Your task to perform on an android device: Go to Google Image 0: 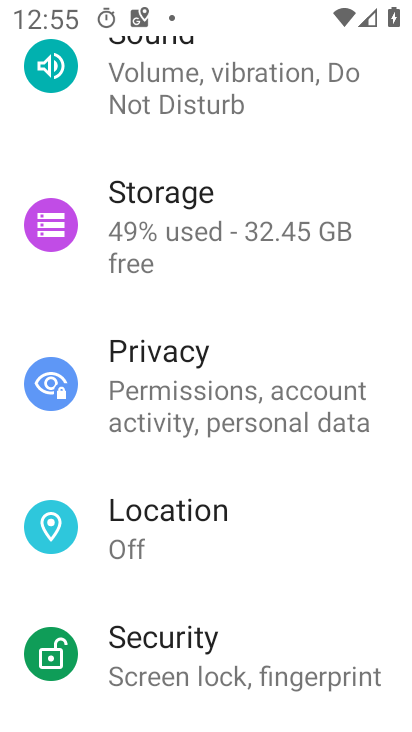
Step 0: press home button
Your task to perform on an android device: Go to Google Image 1: 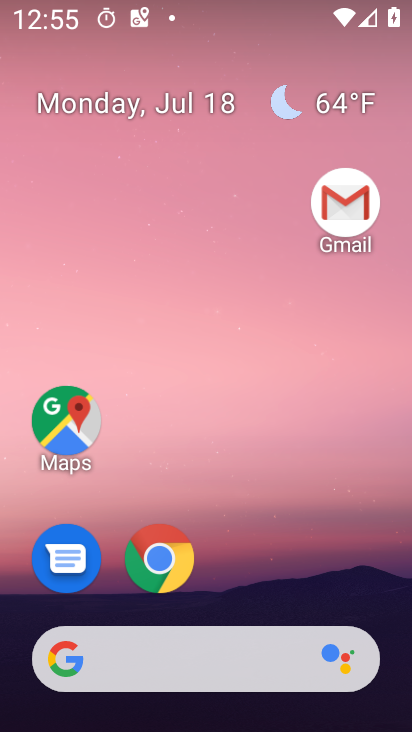
Step 1: drag from (319, 548) to (374, 146)
Your task to perform on an android device: Go to Google Image 2: 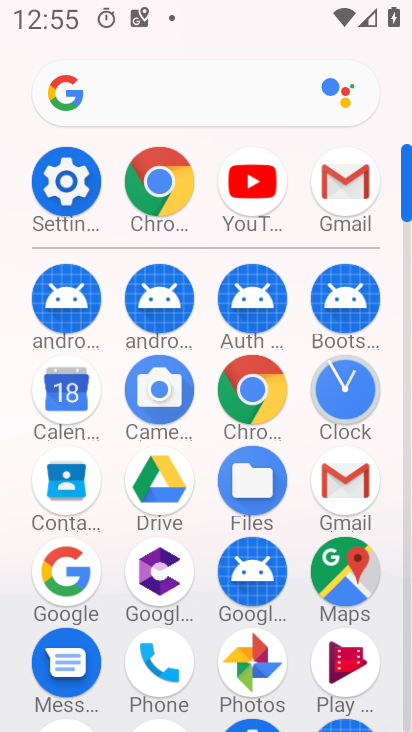
Step 2: click (81, 565)
Your task to perform on an android device: Go to Google Image 3: 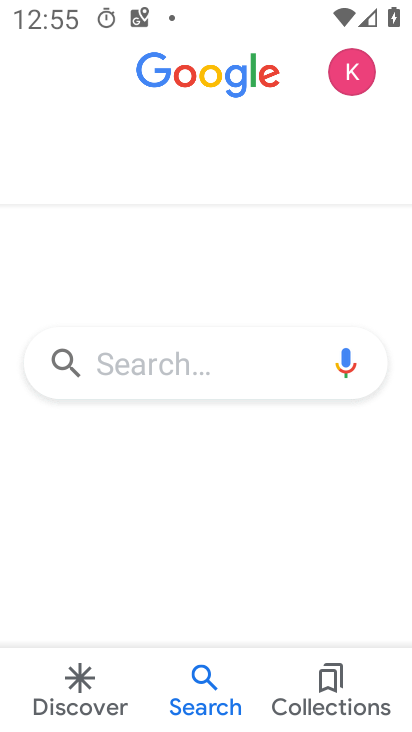
Step 3: task complete